Your task to perform on an android device: install app "Pandora - Music & Podcasts" Image 0: 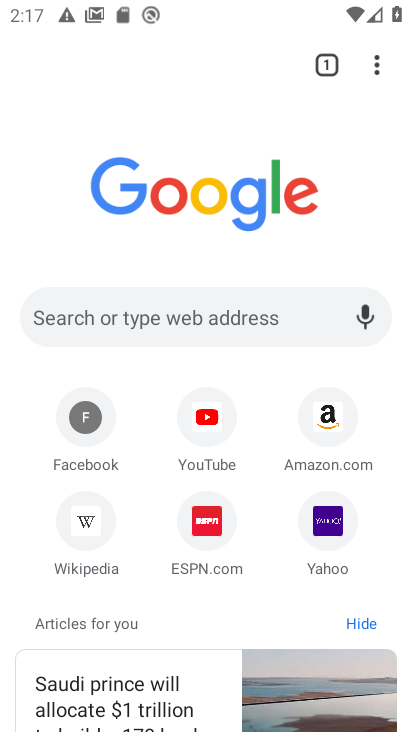
Step 0: press home button
Your task to perform on an android device: install app "Pandora - Music & Podcasts" Image 1: 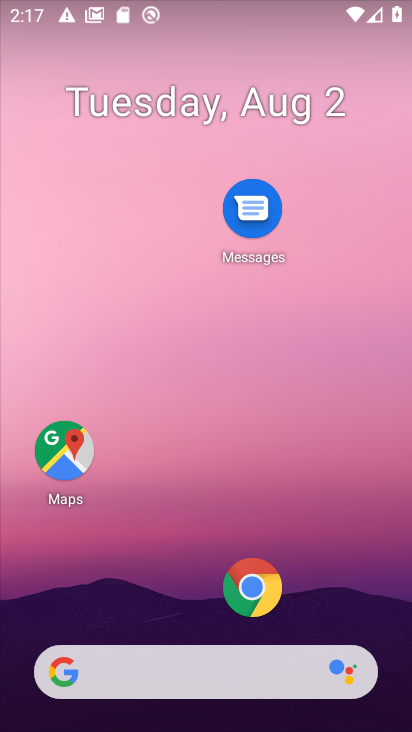
Step 1: drag from (194, 540) to (228, 229)
Your task to perform on an android device: install app "Pandora - Music & Podcasts" Image 2: 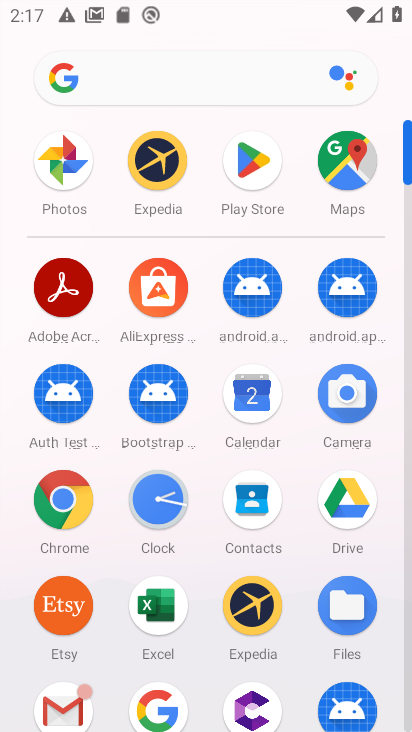
Step 2: click (246, 159)
Your task to perform on an android device: install app "Pandora - Music & Podcasts" Image 3: 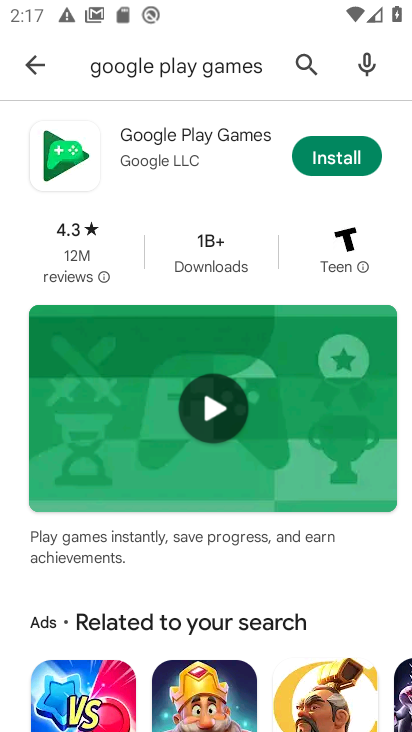
Step 3: click (301, 68)
Your task to perform on an android device: install app "Pandora - Music & Podcasts" Image 4: 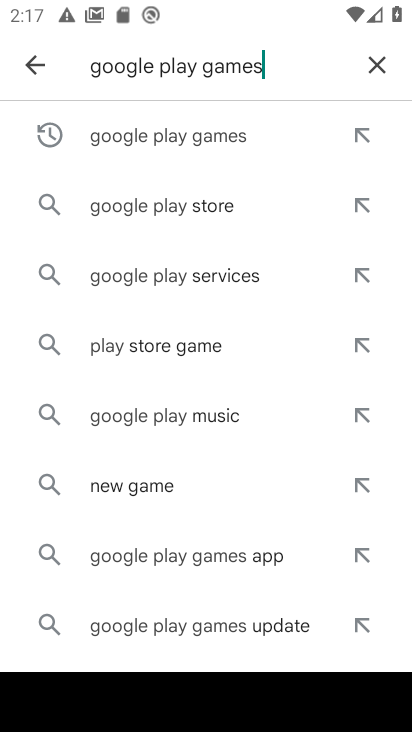
Step 4: click (381, 63)
Your task to perform on an android device: install app "Pandora - Music & Podcasts" Image 5: 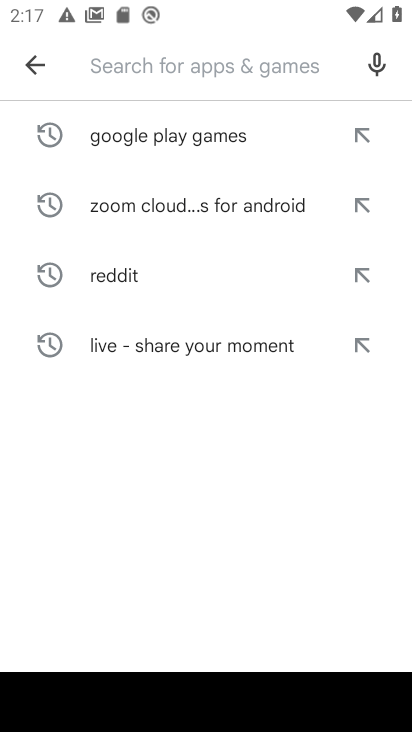
Step 5: type "Pandora - Music & Podcasts"
Your task to perform on an android device: install app "Pandora - Music & Podcasts" Image 6: 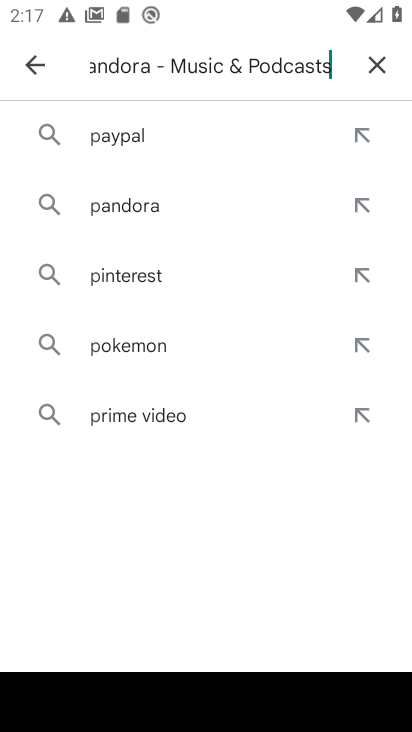
Step 6: type ""
Your task to perform on an android device: install app "Pandora - Music & Podcasts" Image 7: 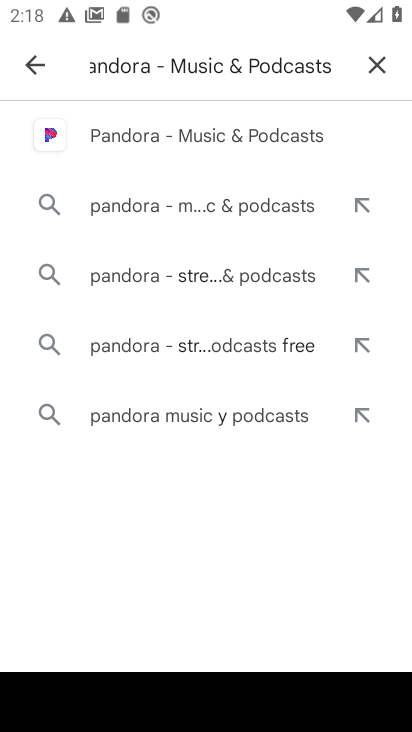
Step 7: click (148, 139)
Your task to perform on an android device: install app "Pandora - Music & Podcasts" Image 8: 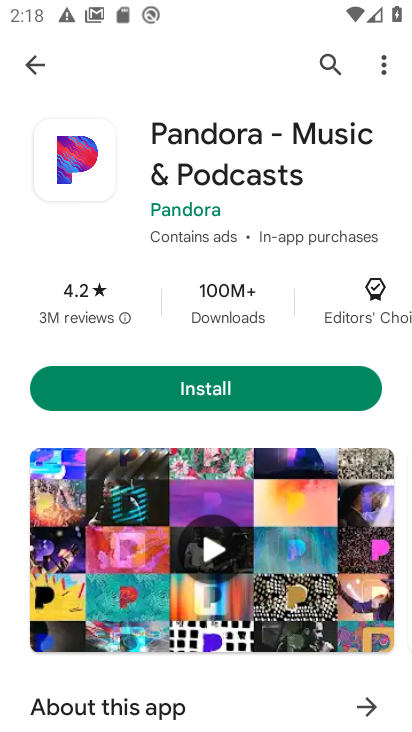
Step 8: click (220, 380)
Your task to perform on an android device: install app "Pandora - Music & Podcasts" Image 9: 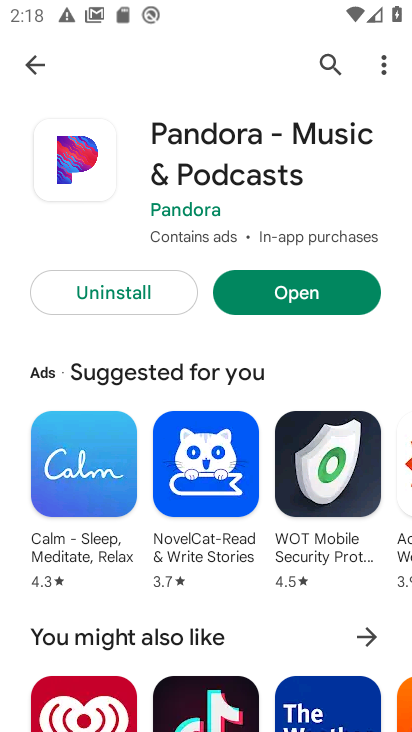
Step 9: task complete